Your task to perform on an android device: turn on translation in the chrome app Image 0: 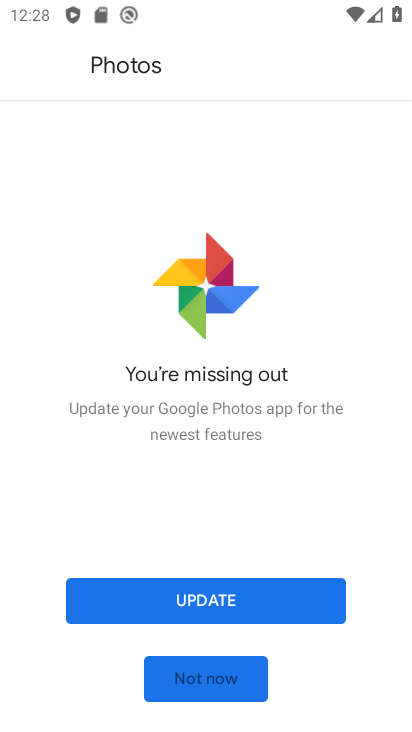
Step 0: press home button
Your task to perform on an android device: turn on translation in the chrome app Image 1: 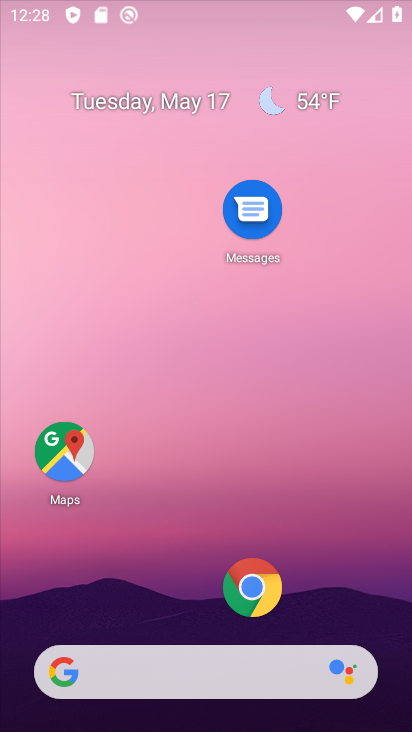
Step 1: drag from (221, 614) to (302, 68)
Your task to perform on an android device: turn on translation in the chrome app Image 2: 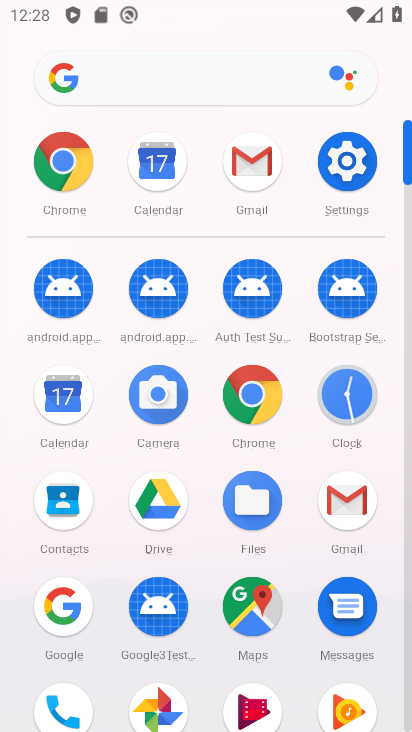
Step 2: click (238, 397)
Your task to perform on an android device: turn on translation in the chrome app Image 3: 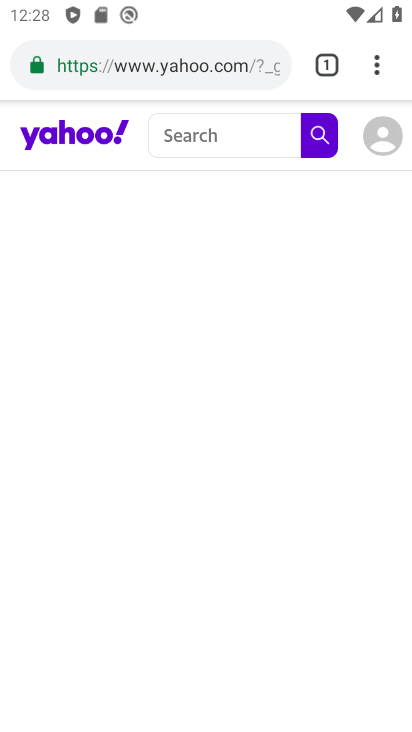
Step 3: click (377, 71)
Your task to perform on an android device: turn on translation in the chrome app Image 4: 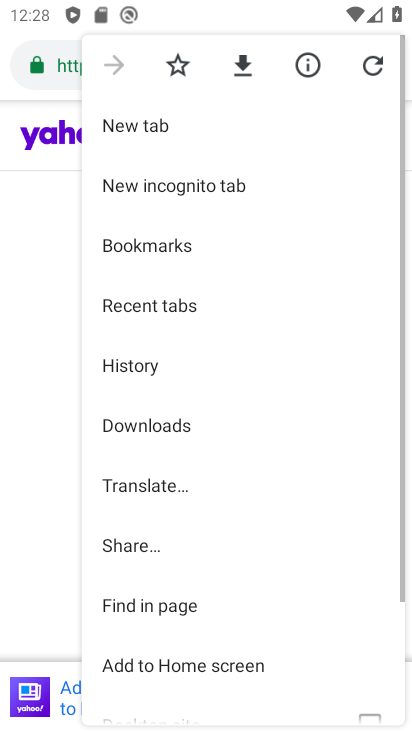
Step 4: drag from (168, 609) to (230, 222)
Your task to perform on an android device: turn on translation in the chrome app Image 5: 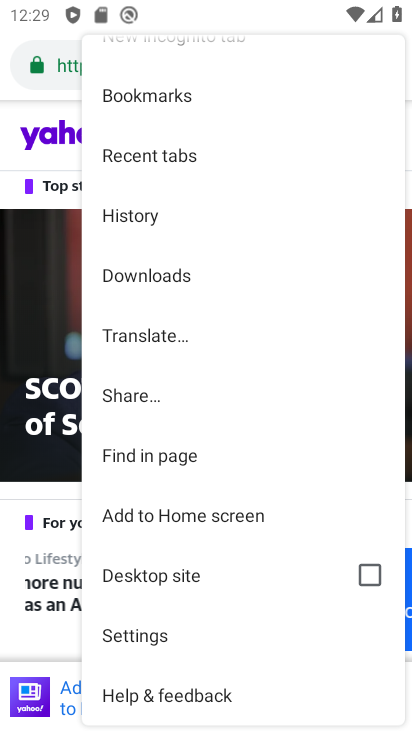
Step 5: click (128, 642)
Your task to perform on an android device: turn on translation in the chrome app Image 6: 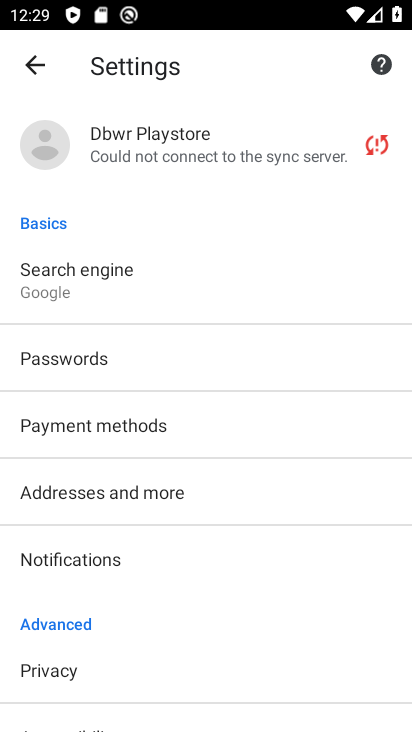
Step 6: drag from (145, 598) to (168, 343)
Your task to perform on an android device: turn on translation in the chrome app Image 7: 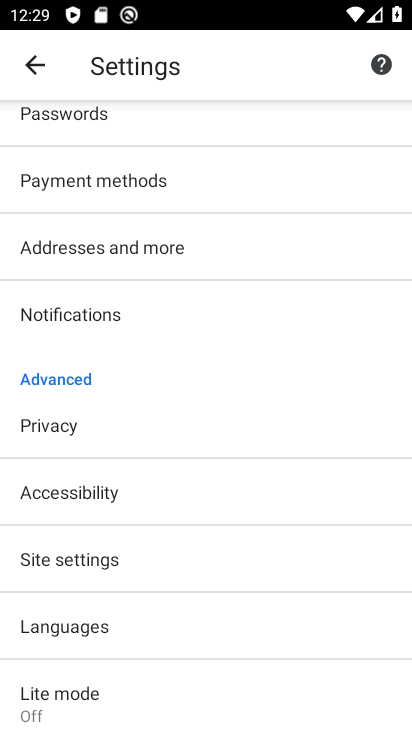
Step 7: click (91, 628)
Your task to perform on an android device: turn on translation in the chrome app Image 8: 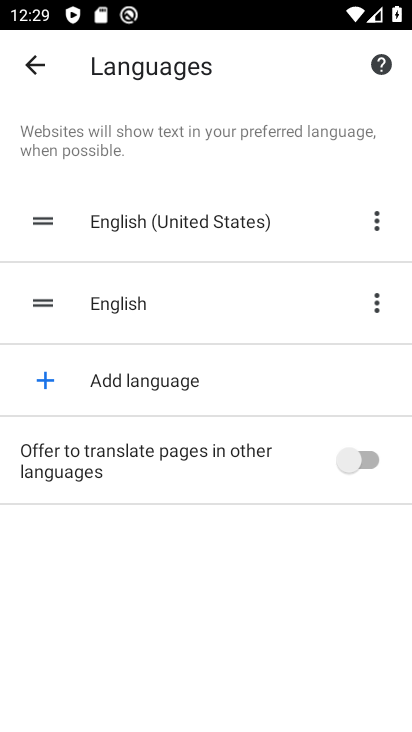
Step 8: click (387, 463)
Your task to perform on an android device: turn on translation in the chrome app Image 9: 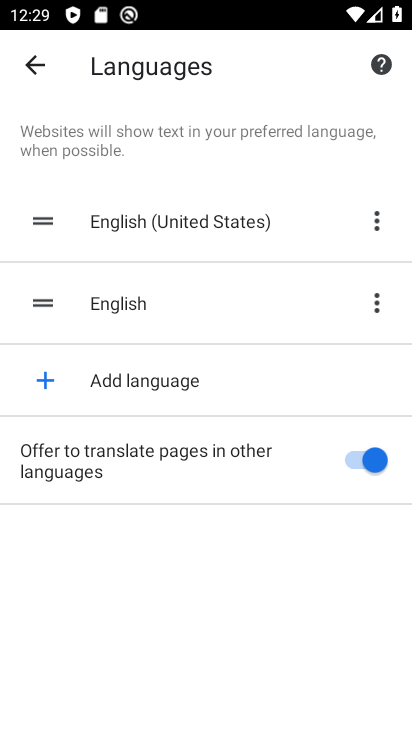
Step 9: task complete